Your task to perform on an android device: Open the calendar and show me this week's events? Image 0: 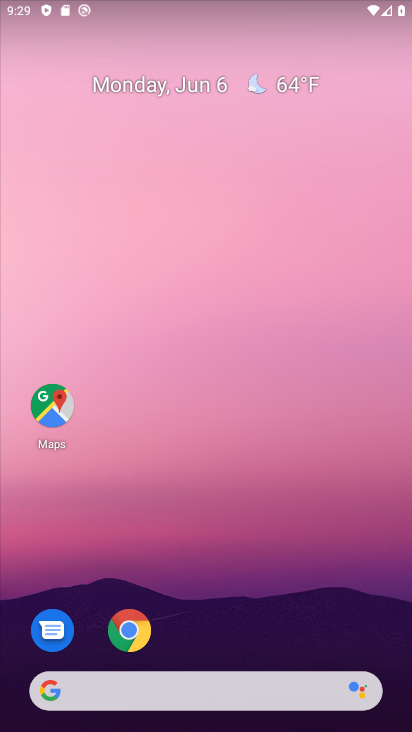
Step 0: drag from (116, 730) to (284, 228)
Your task to perform on an android device: Open the calendar and show me this week's events? Image 1: 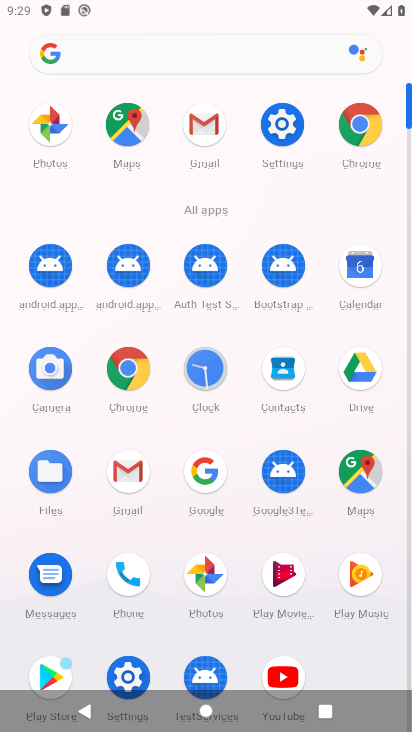
Step 1: click (361, 277)
Your task to perform on an android device: Open the calendar and show me this week's events? Image 2: 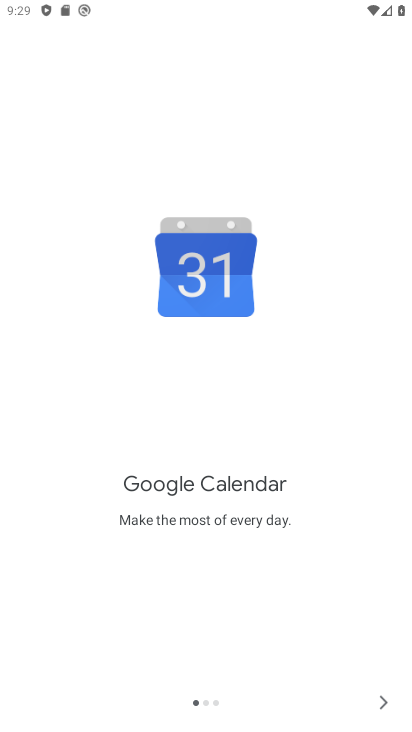
Step 2: click (376, 707)
Your task to perform on an android device: Open the calendar and show me this week's events? Image 3: 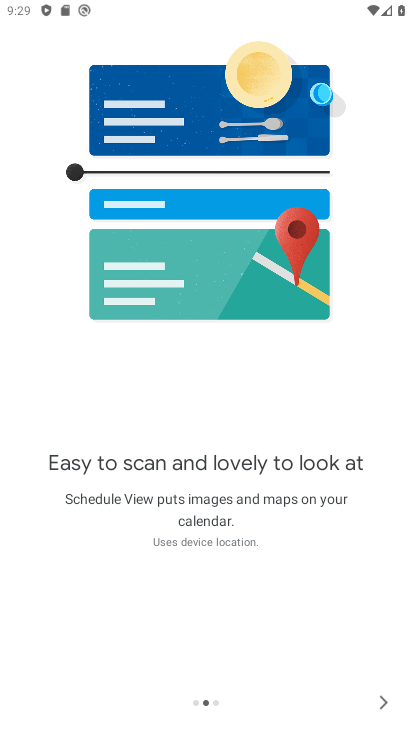
Step 3: click (378, 709)
Your task to perform on an android device: Open the calendar and show me this week's events? Image 4: 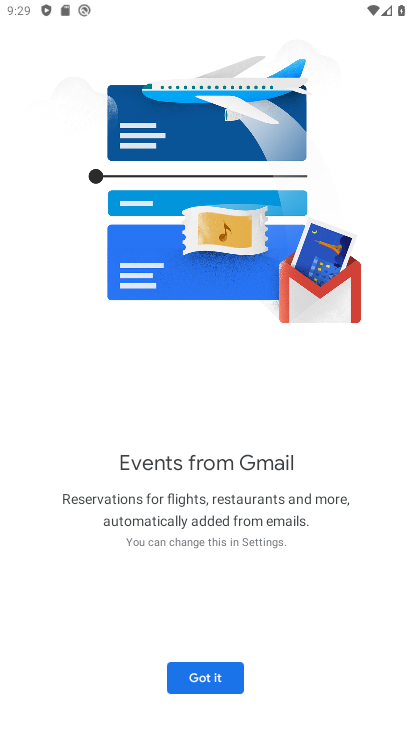
Step 4: click (378, 709)
Your task to perform on an android device: Open the calendar and show me this week's events? Image 5: 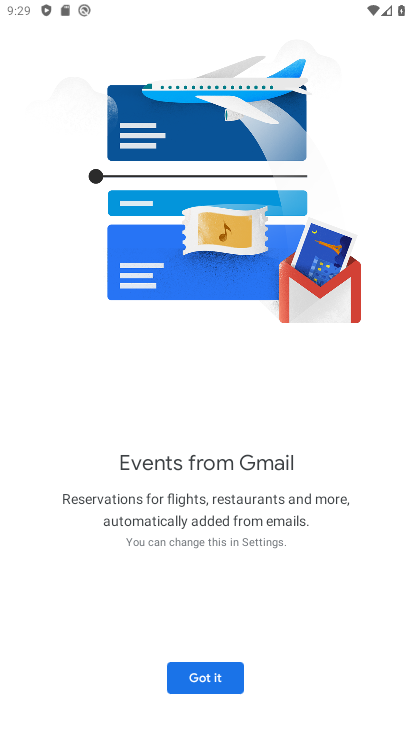
Step 5: click (229, 679)
Your task to perform on an android device: Open the calendar and show me this week's events? Image 6: 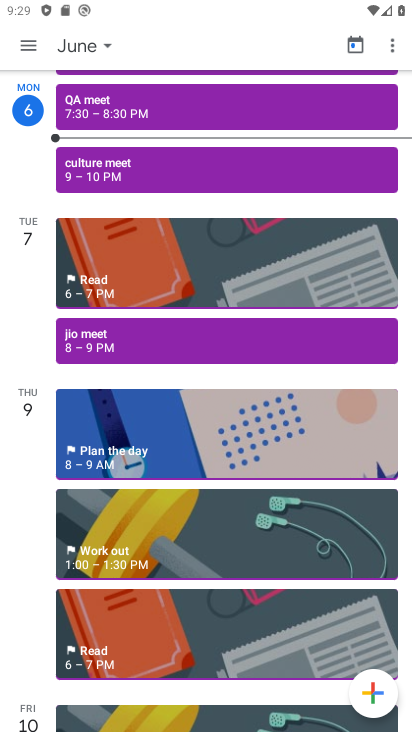
Step 6: click (21, 51)
Your task to perform on an android device: Open the calendar and show me this week's events? Image 7: 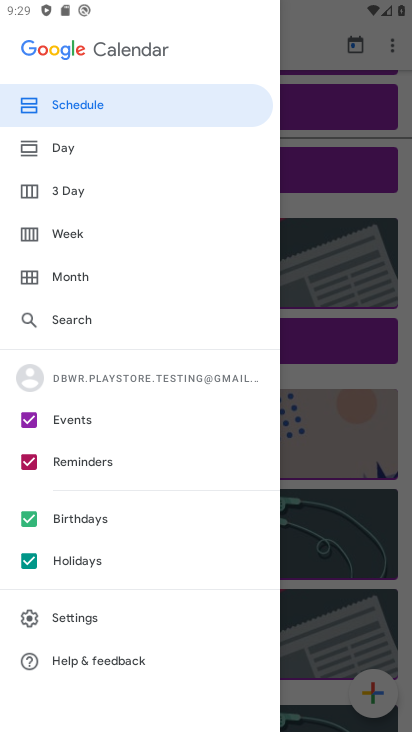
Step 7: click (29, 465)
Your task to perform on an android device: Open the calendar and show me this week's events? Image 8: 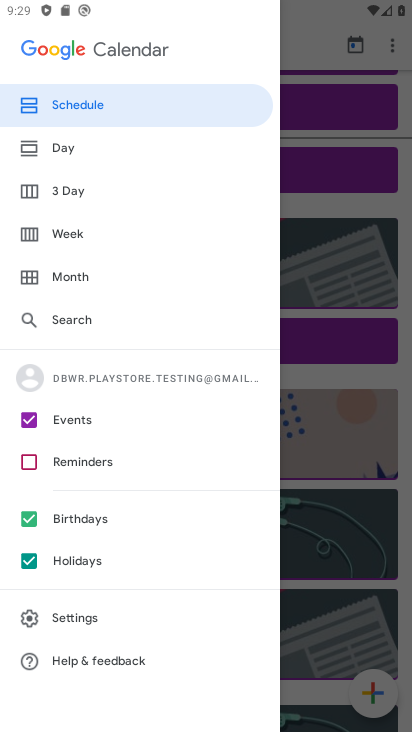
Step 8: click (29, 523)
Your task to perform on an android device: Open the calendar and show me this week's events? Image 9: 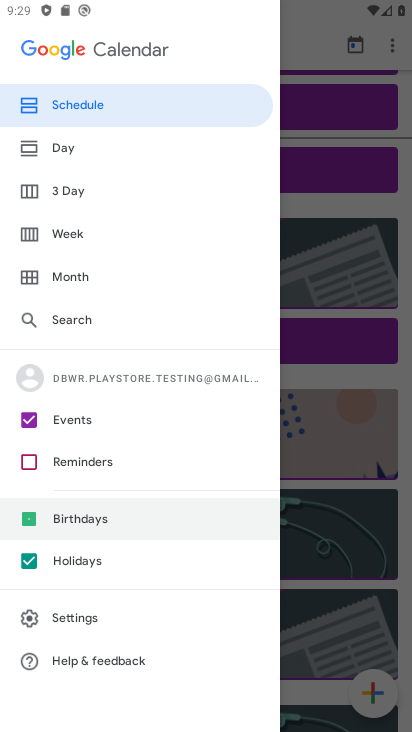
Step 9: click (30, 567)
Your task to perform on an android device: Open the calendar and show me this week's events? Image 10: 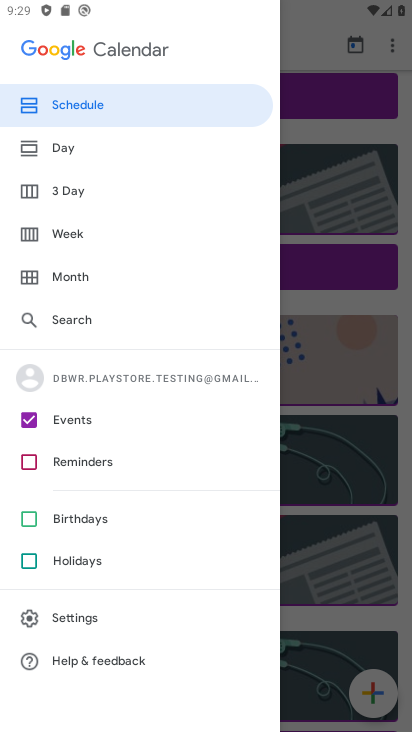
Step 10: click (84, 231)
Your task to perform on an android device: Open the calendar and show me this week's events? Image 11: 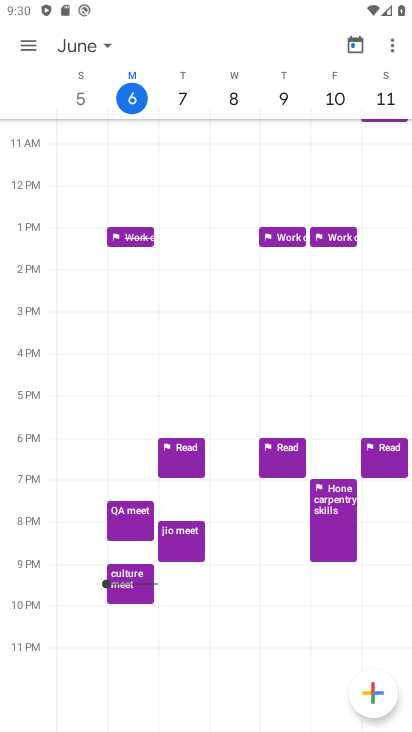
Step 11: task complete